Your task to perform on an android device: Open Google Maps Image 0: 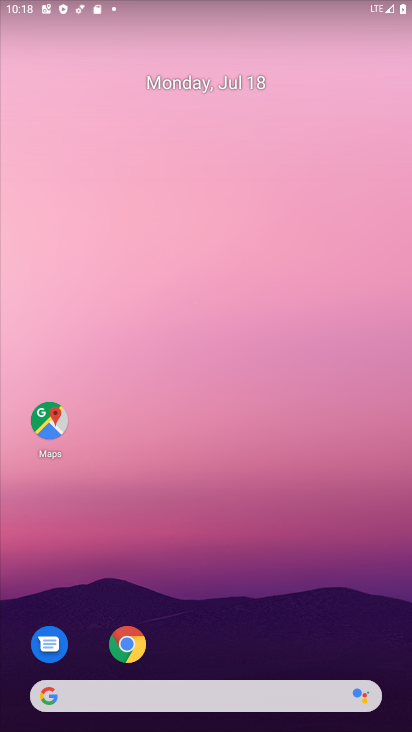
Step 0: drag from (339, 620) to (355, 168)
Your task to perform on an android device: Open Google Maps Image 1: 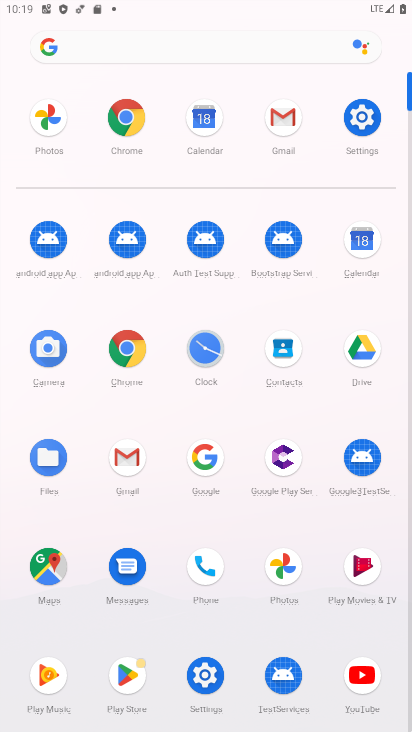
Step 1: click (46, 565)
Your task to perform on an android device: Open Google Maps Image 2: 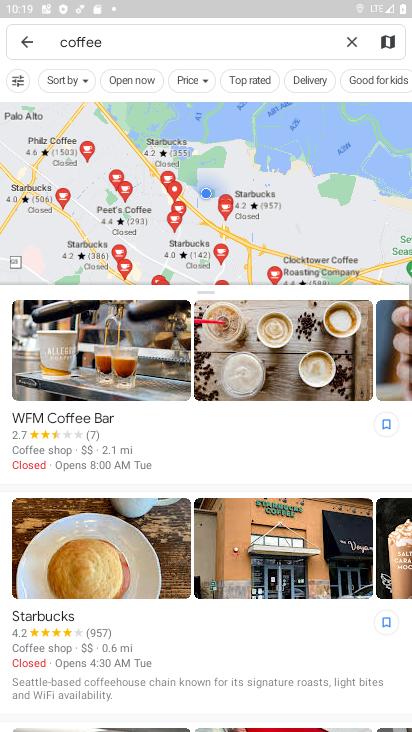
Step 2: task complete